Your task to perform on an android device: Open CNN.com Image 0: 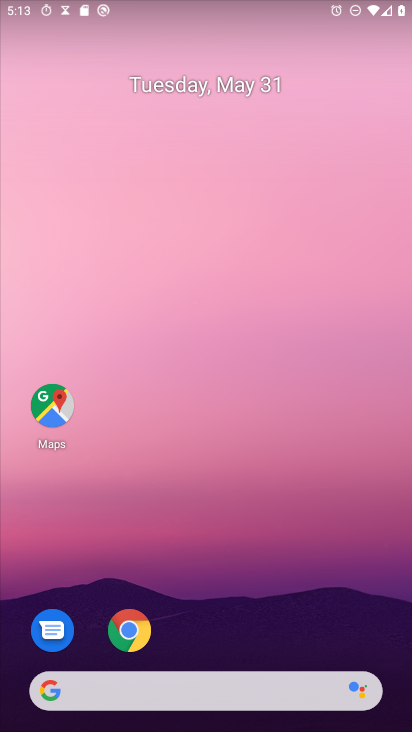
Step 0: drag from (197, 674) to (250, 34)
Your task to perform on an android device: Open CNN.com Image 1: 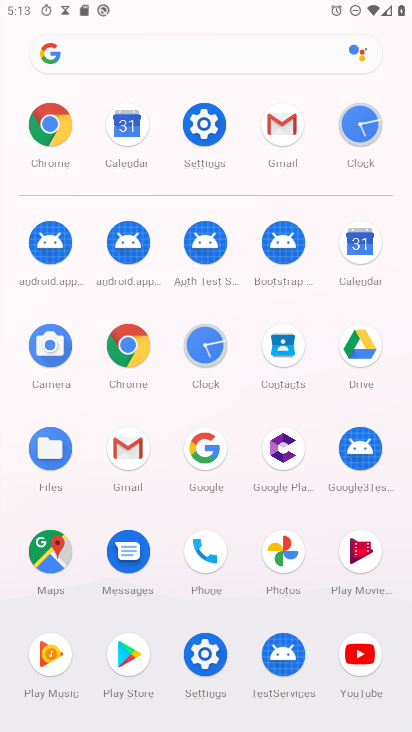
Step 1: click (126, 343)
Your task to perform on an android device: Open CNN.com Image 2: 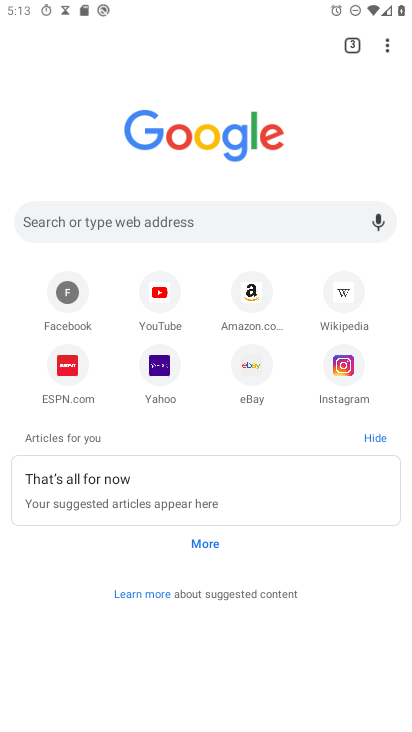
Step 2: click (156, 215)
Your task to perform on an android device: Open CNN.com Image 3: 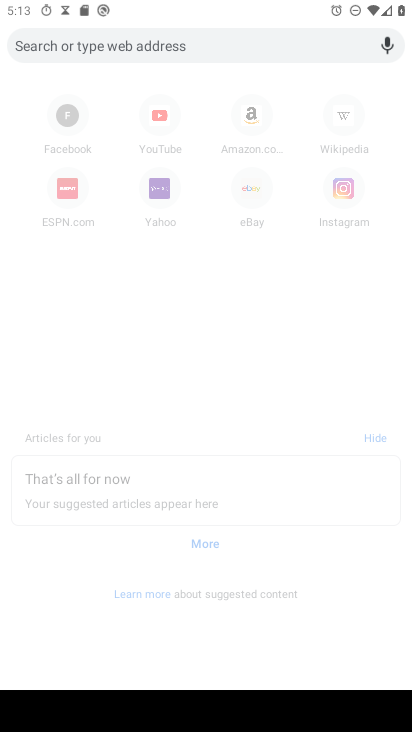
Step 3: type "cnn.com"
Your task to perform on an android device: Open CNN.com Image 4: 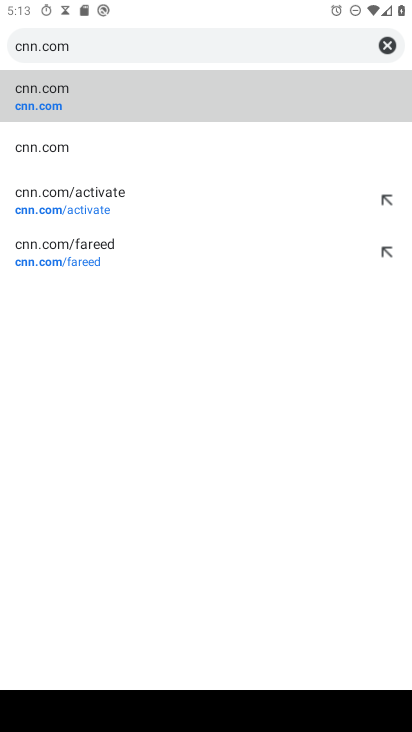
Step 4: click (29, 106)
Your task to perform on an android device: Open CNN.com Image 5: 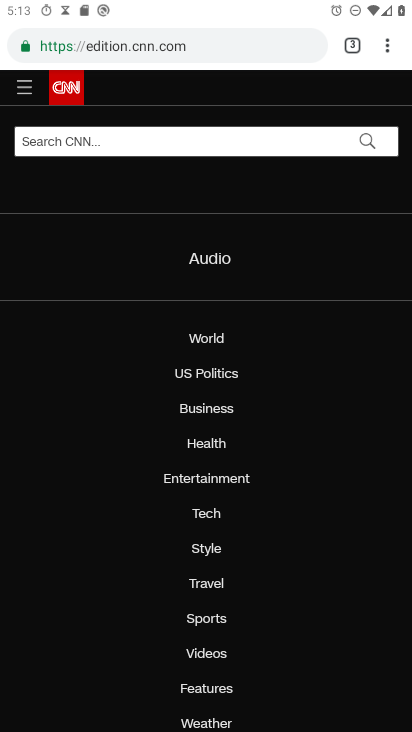
Step 5: task complete